Your task to perform on an android device: Go to network settings Image 0: 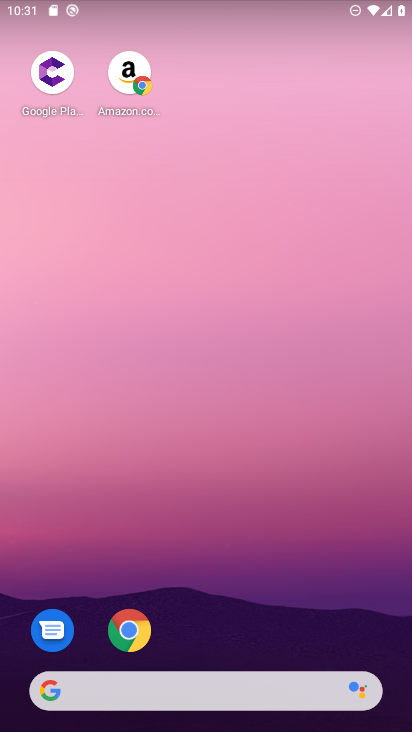
Step 0: drag from (218, 696) to (314, 193)
Your task to perform on an android device: Go to network settings Image 1: 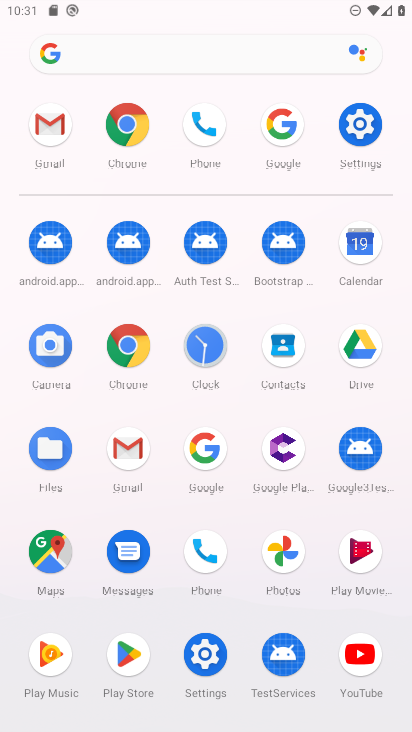
Step 1: click (359, 118)
Your task to perform on an android device: Go to network settings Image 2: 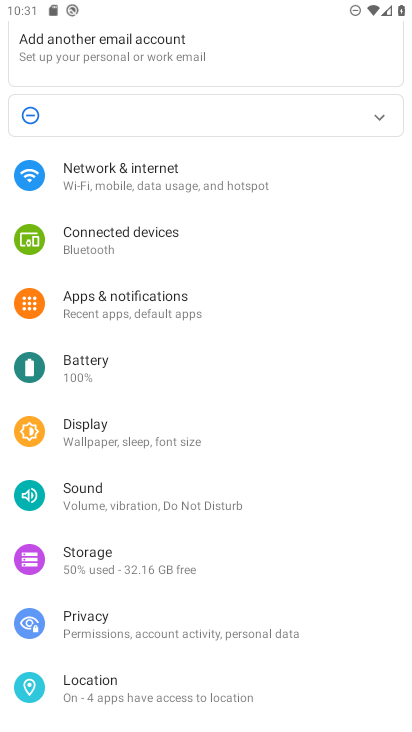
Step 2: task complete